Your task to perform on an android device: Check the weather Image 0: 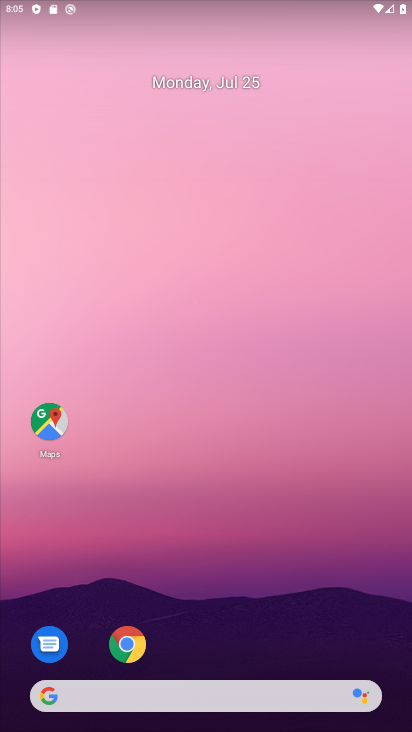
Step 0: click (151, 685)
Your task to perform on an android device: Check the weather Image 1: 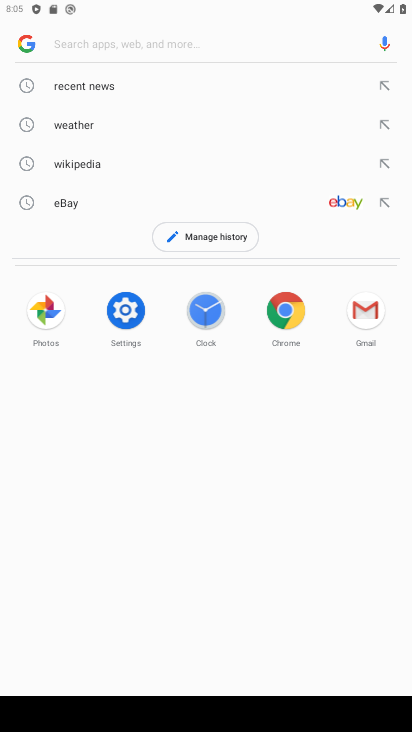
Step 1: click (76, 117)
Your task to perform on an android device: Check the weather Image 2: 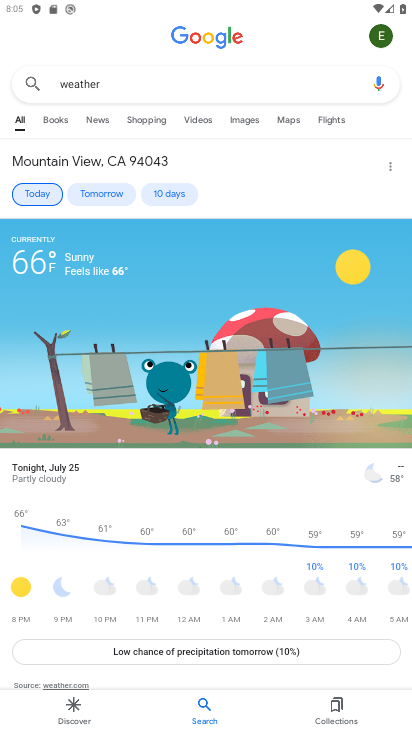
Step 2: task complete